Your task to perform on an android device: turn on priority inbox in the gmail app Image 0: 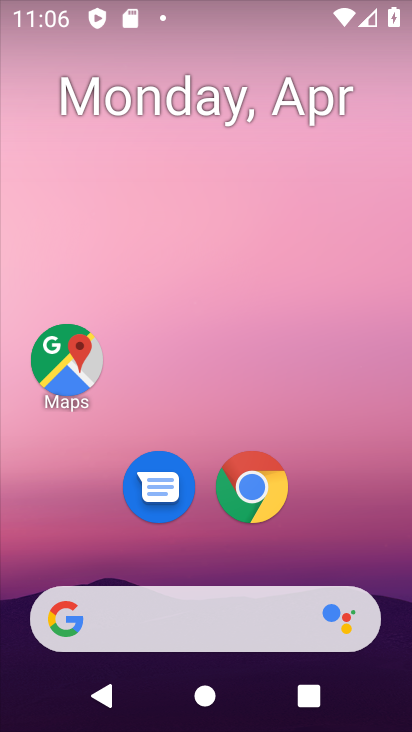
Step 0: drag from (406, 580) to (302, 152)
Your task to perform on an android device: turn on priority inbox in the gmail app Image 1: 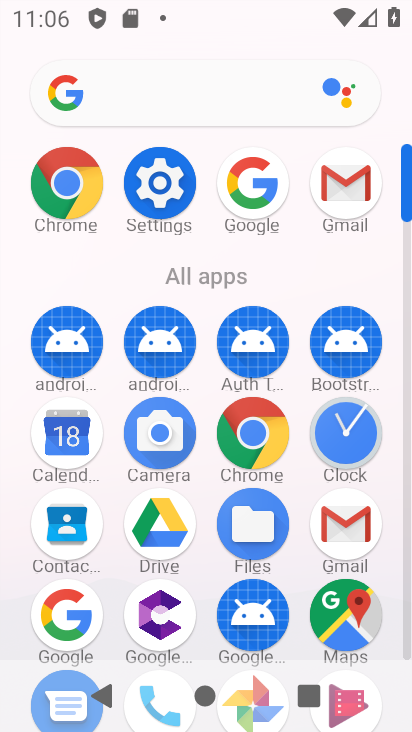
Step 1: click (331, 171)
Your task to perform on an android device: turn on priority inbox in the gmail app Image 2: 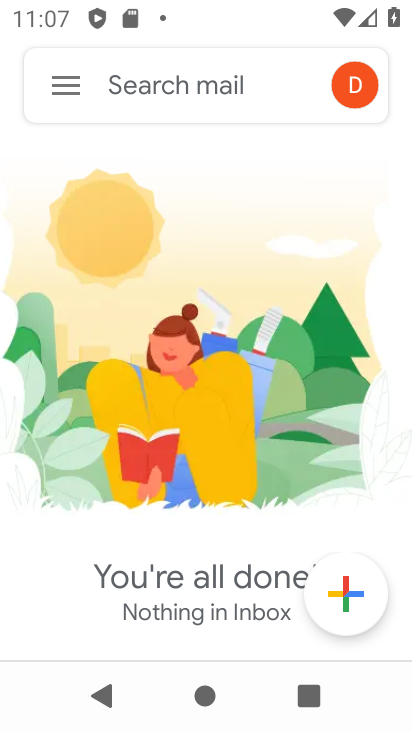
Step 2: click (70, 91)
Your task to perform on an android device: turn on priority inbox in the gmail app Image 3: 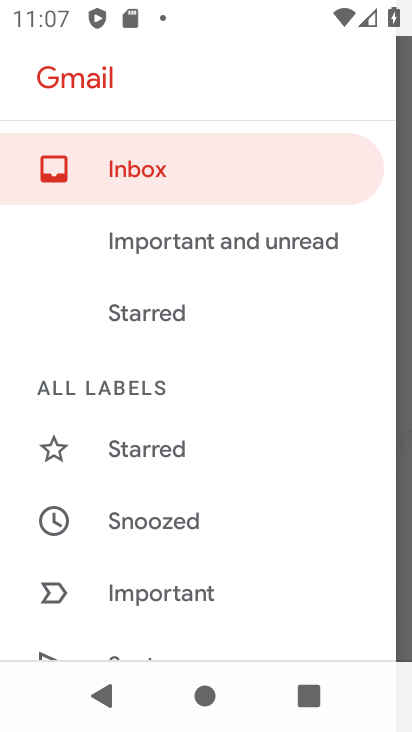
Step 3: drag from (319, 614) to (302, 151)
Your task to perform on an android device: turn on priority inbox in the gmail app Image 4: 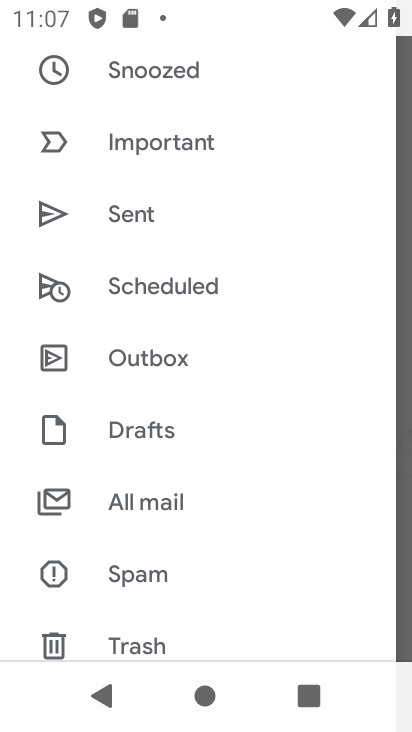
Step 4: drag from (267, 614) to (247, 261)
Your task to perform on an android device: turn on priority inbox in the gmail app Image 5: 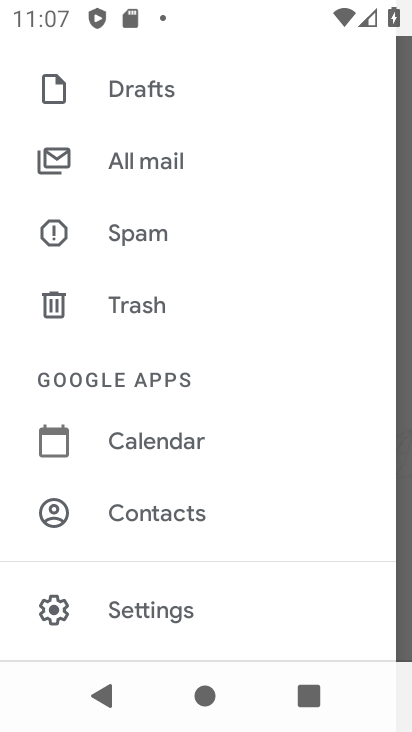
Step 5: click (203, 604)
Your task to perform on an android device: turn on priority inbox in the gmail app Image 6: 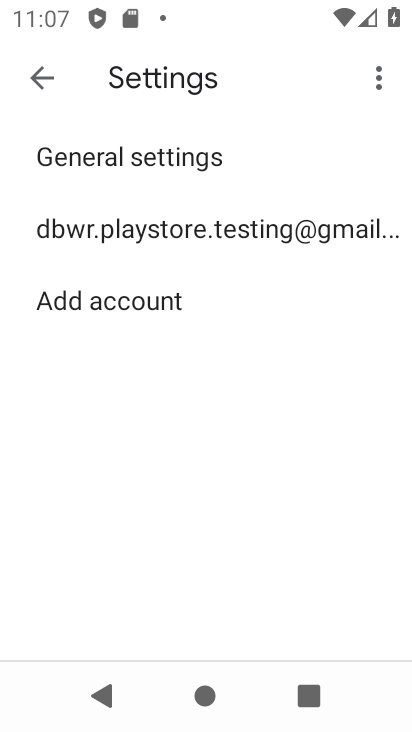
Step 6: click (294, 227)
Your task to perform on an android device: turn on priority inbox in the gmail app Image 7: 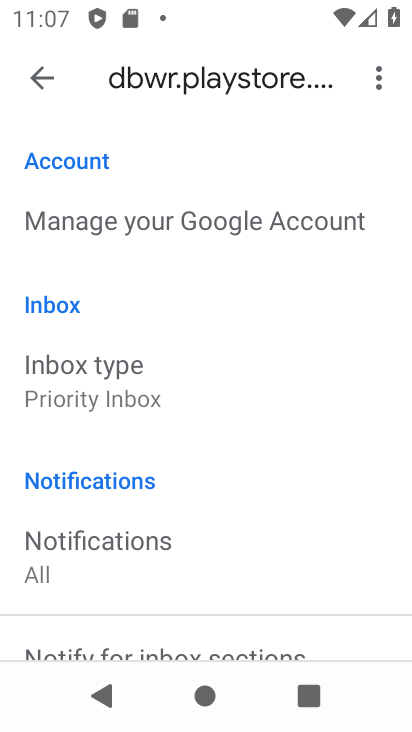
Step 7: task complete